Your task to perform on an android device: set the stopwatch Image 0: 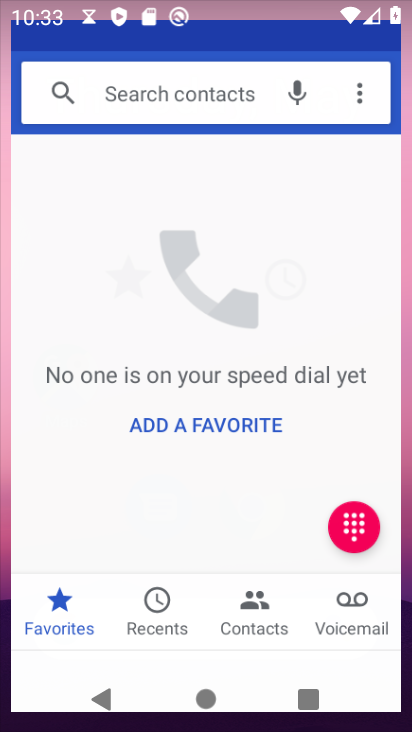
Step 0: drag from (331, 489) to (322, 170)
Your task to perform on an android device: set the stopwatch Image 1: 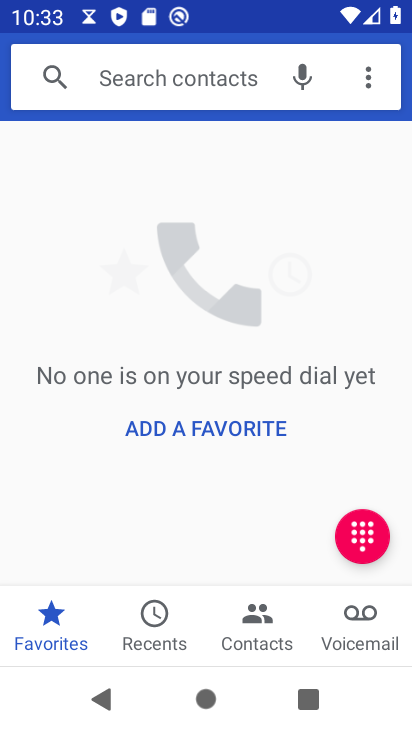
Step 1: press back button
Your task to perform on an android device: set the stopwatch Image 2: 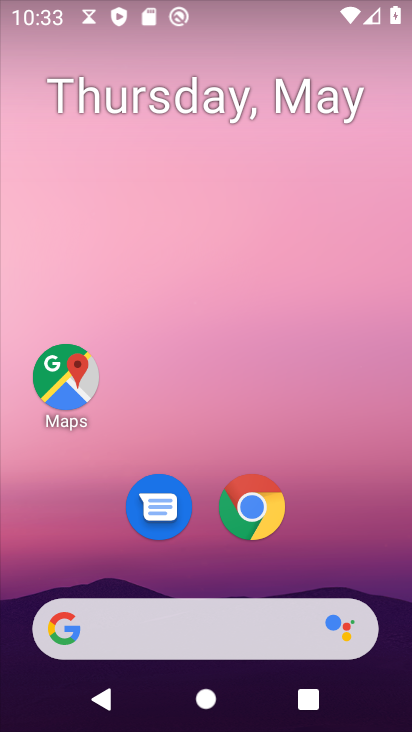
Step 2: drag from (311, 537) to (272, 8)
Your task to perform on an android device: set the stopwatch Image 3: 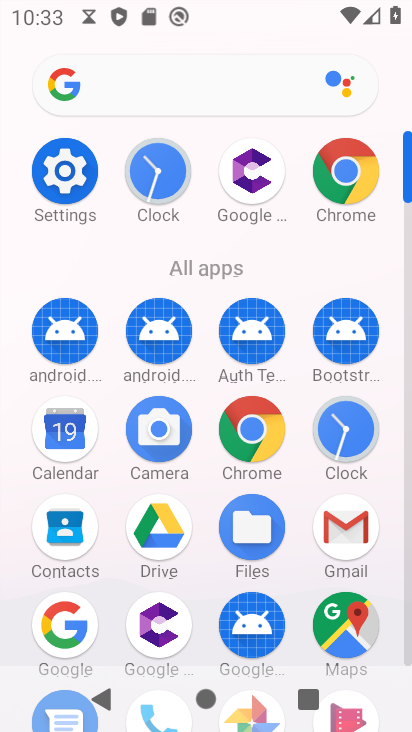
Step 3: click (351, 428)
Your task to perform on an android device: set the stopwatch Image 4: 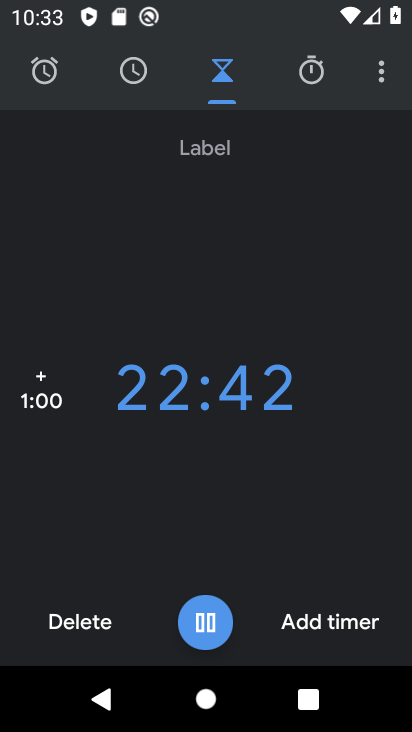
Step 4: click (300, 70)
Your task to perform on an android device: set the stopwatch Image 5: 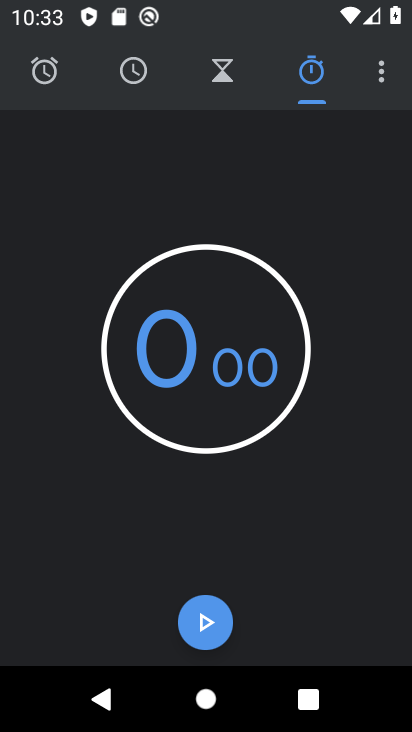
Step 5: click (197, 608)
Your task to perform on an android device: set the stopwatch Image 6: 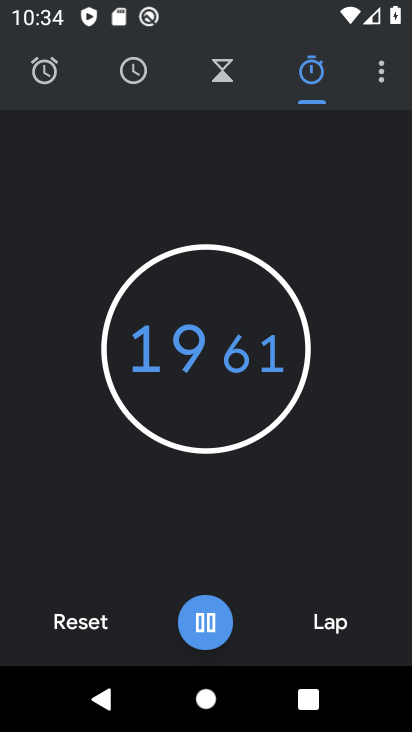
Step 6: task complete